Your task to perform on an android device: manage bookmarks in the chrome app Image 0: 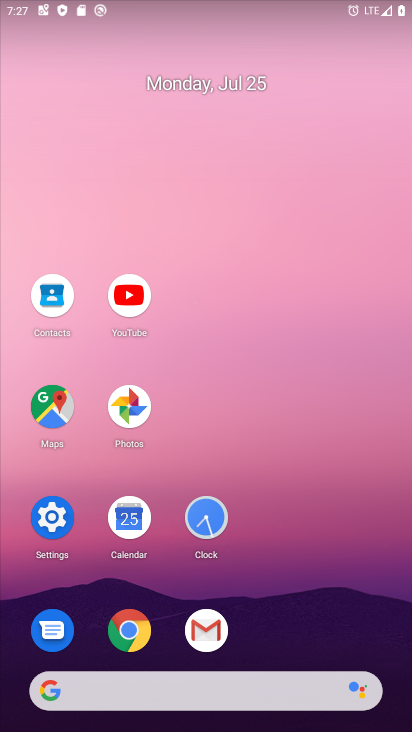
Step 0: click (123, 606)
Your task to perform on an android device: manage bookmarks in the chrome app Image 1: 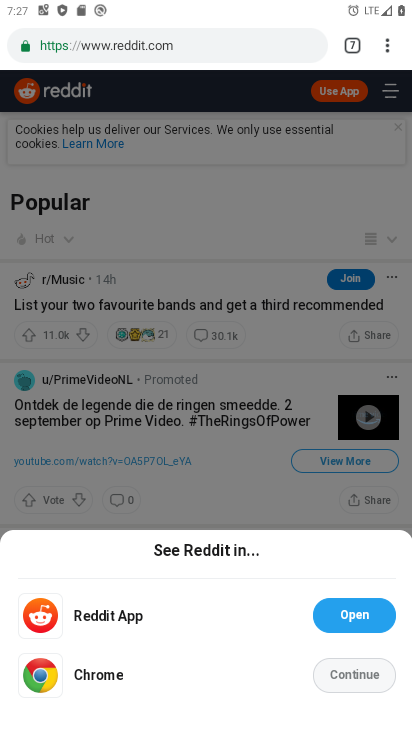
Step 1: click (387, 33)
Your task to perform on an android device: manage bookmarks in the chrome app Image 2: 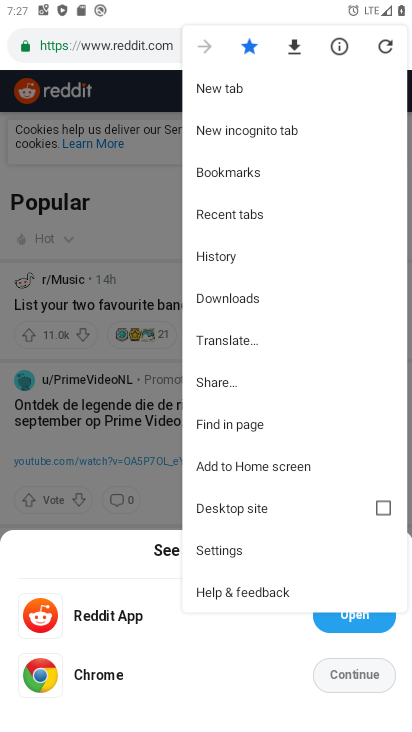
Step 2: click (221, 165)
Your task to perform on an android device: manage bookmarks in the chrome app Image 3: 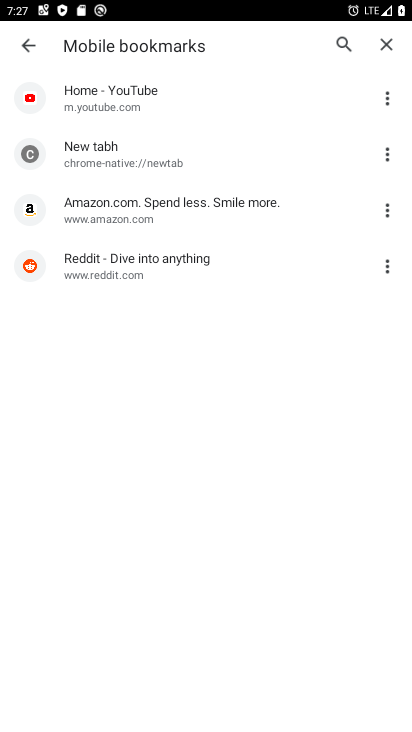
Step 3: click (385, 97)
Your task to perform on an android device: manage bookmarks in the chrome app Image 4: 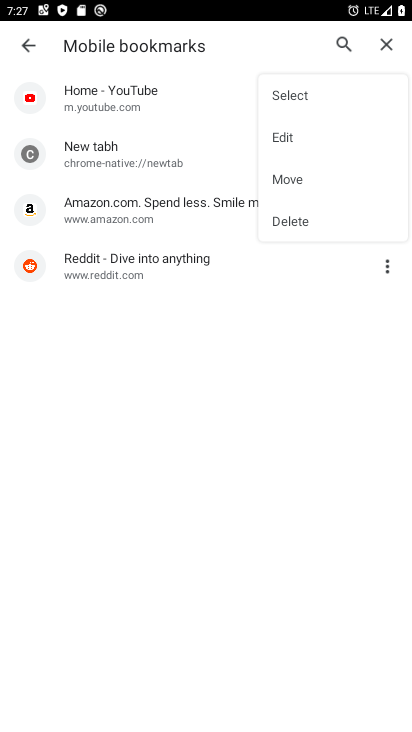
Step 4: click (281, 130)
Your task to perform on an android device: manage bookmarks in the chrome app Image 5: 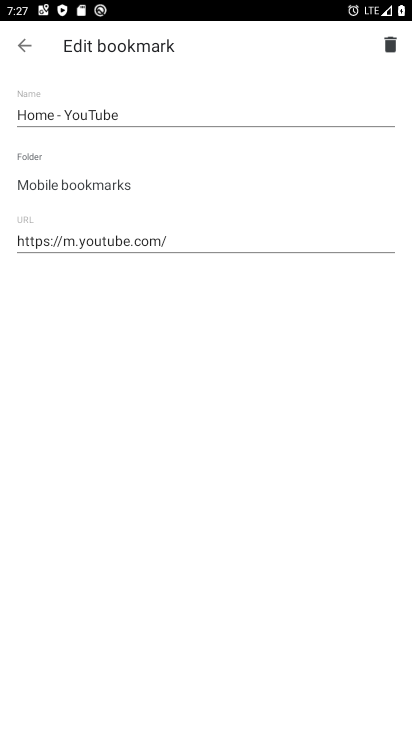
Step 5: task complete